Your task to perform on an android device: Add asus zenbook to the cart on target.com, then select checkout. Image 0: 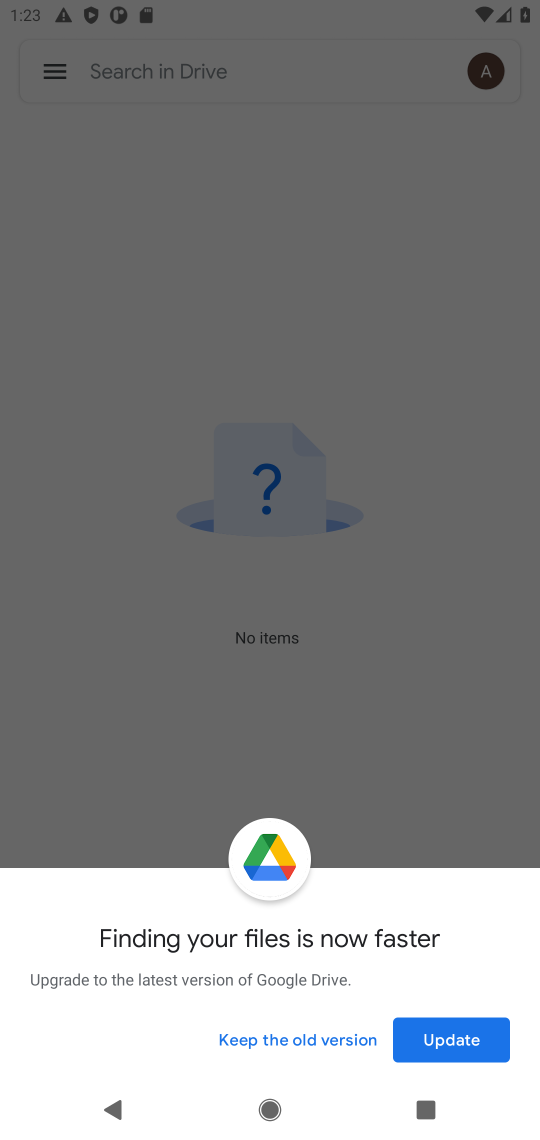
Step 0: press home button
Your task to perform on an android device: Add asus zenbook to the cart on target.com, then select checkout. Image 1: 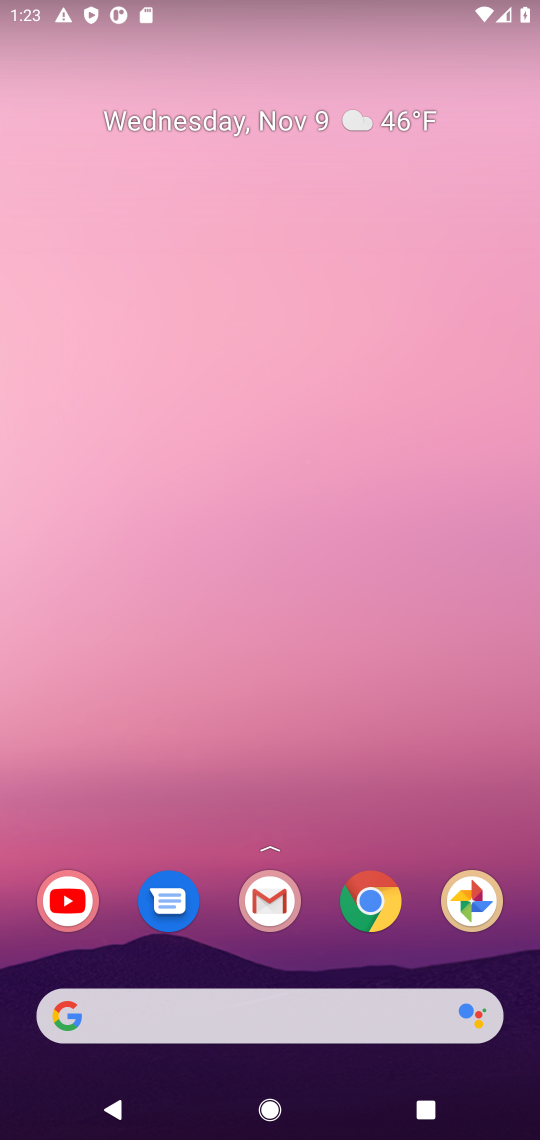
Step 1: click (377, 890)
Your task to perform on an android device: Add asus zenbook to the cart on target.com, then select checkout. Image 2: 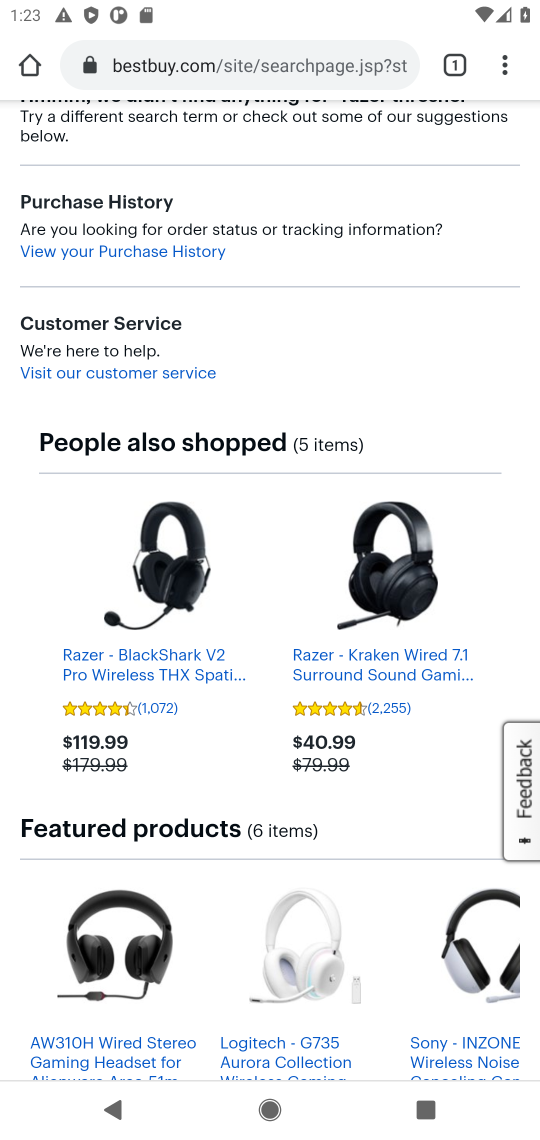
Step 2: click (325, 77)
Your task to perform on an android device: Add asus zenbook to the cart on target.com, then select checkout. Image 3: 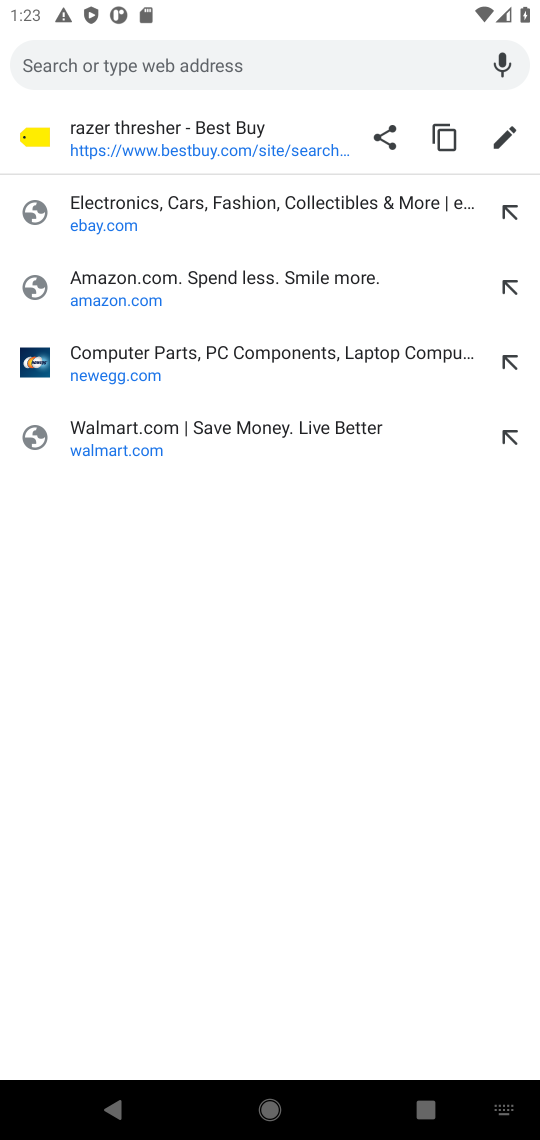
Step 3: type "target.com"
Your task to perform on an android device: Add asus zenbook to the cart on target.com, then select checkout. Image 4: 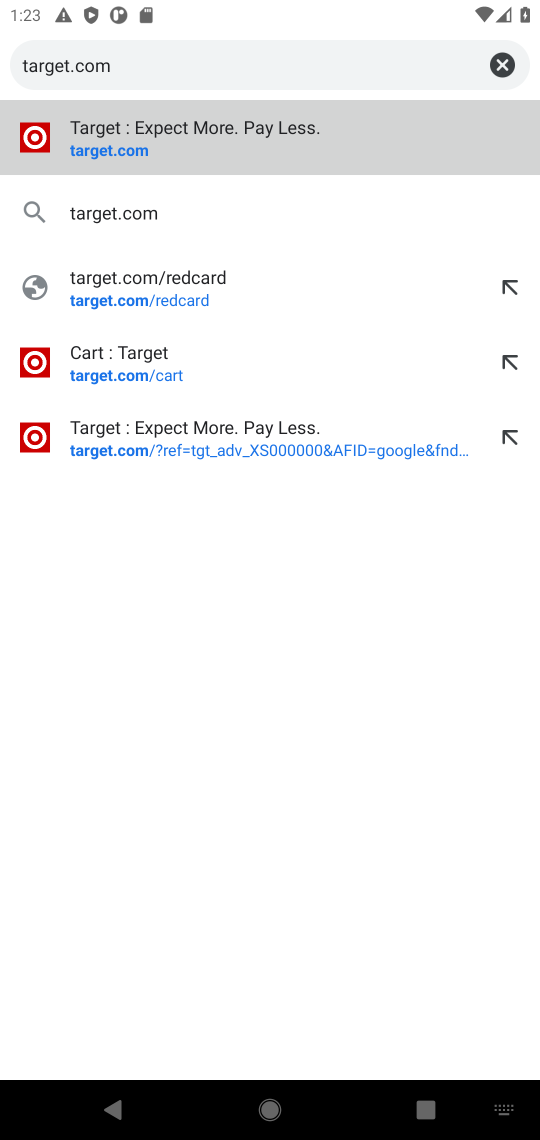
Step 4: press enter
Your task to perform on an android device: Add asus zenbook to the cart on target.com, then select checkout. Image 5: 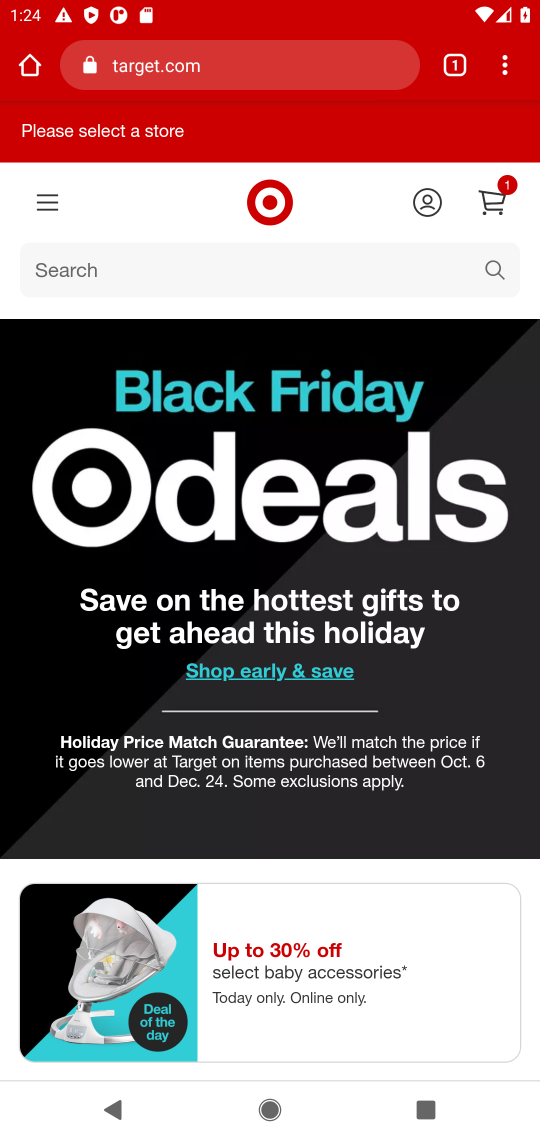
Step 5: click (488, 266)
Your task to perform on an android device: Add asus zenbook to the cart on target.com, then select checkout. Image 6: 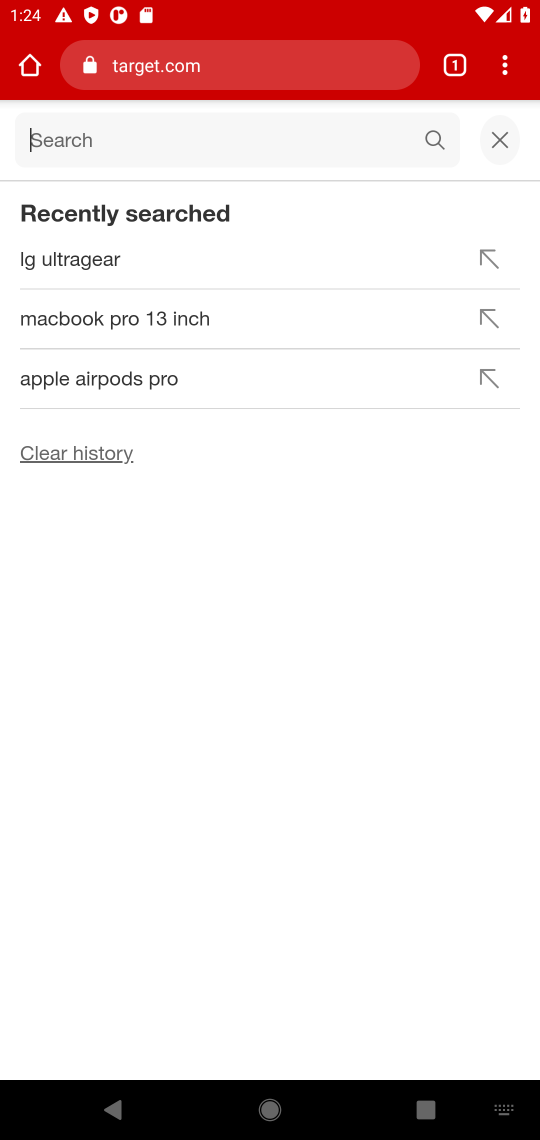
Step 6: type "asus zenbook "
Your task to perform on an android device: Add asus zenbook to the cart on target.com, then select checkout. Image 7: 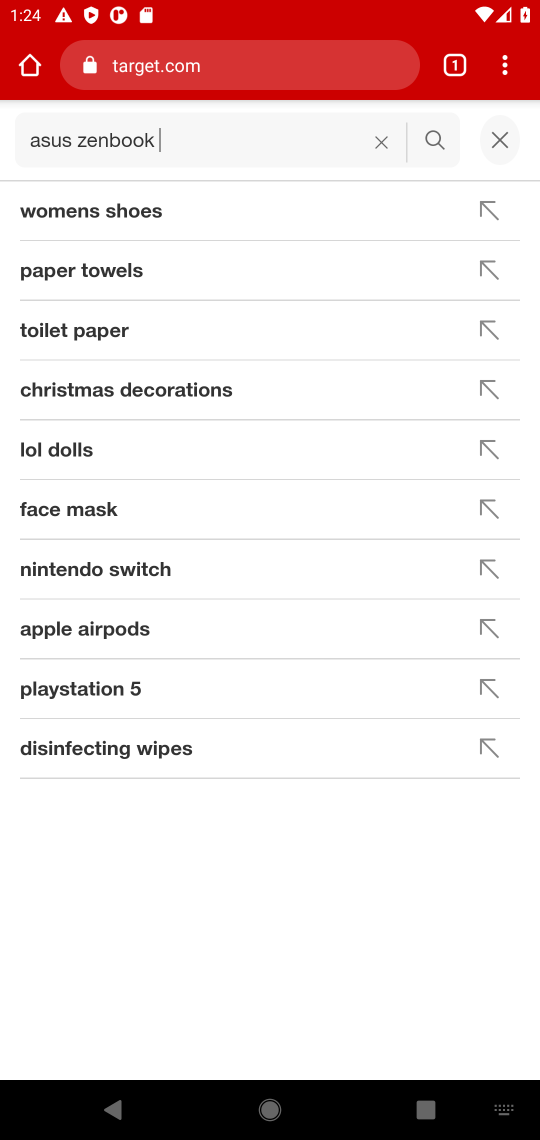
Step 7: press enter
Your task to perform on an android device: Add asus zenbook to the cart on target.com, then select checkout. Image 8: 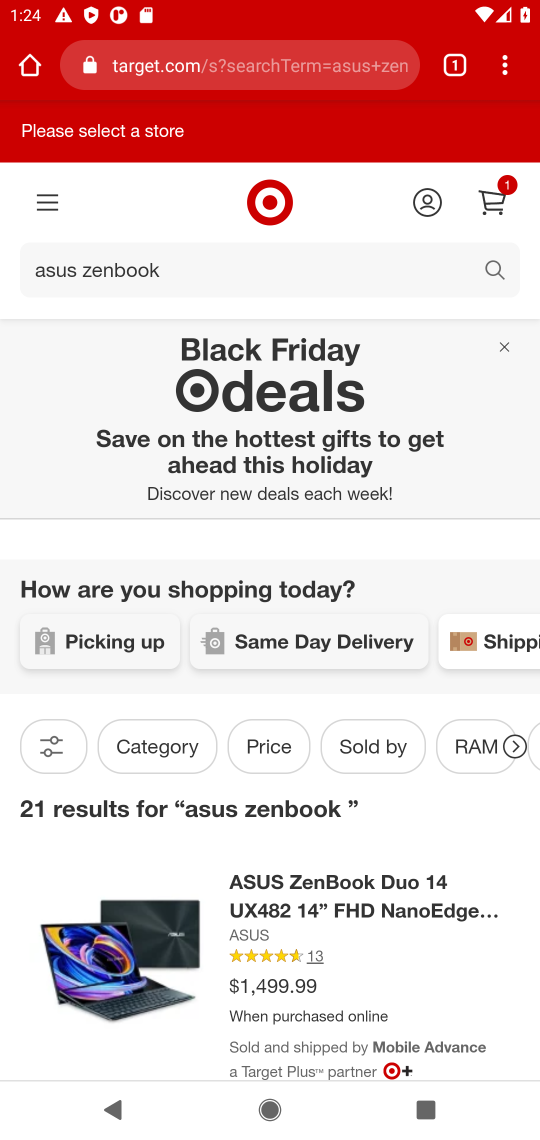
Step 8: drag from (328, 877) to (386, 626)
Your task to perform on an android device: Add asus zenbook to the cart on target.com, then select checkout. Image 9: 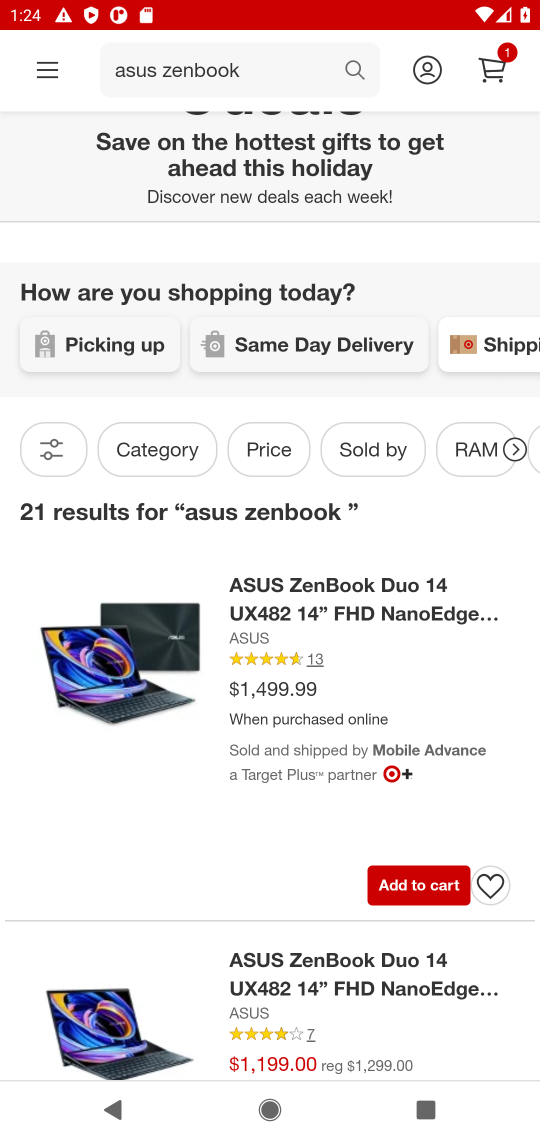
Step 9: click (161, 641)
Your task to perform on an android device: Add asus zenbook to the cart on target.com, then select checkout. Image 10: 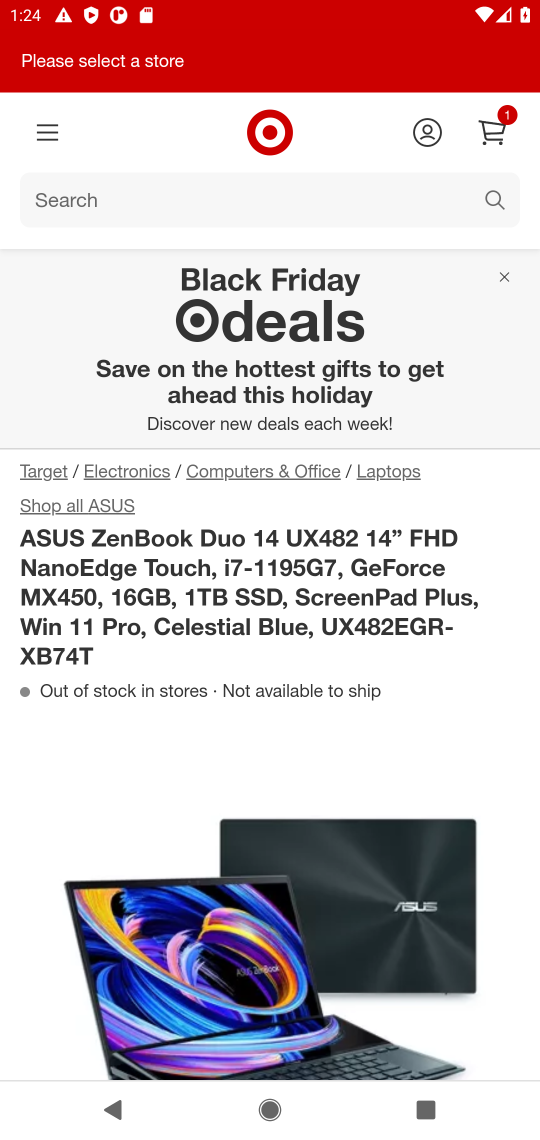
Step 10: drag from (465, 854) to (534, 340)
Your task to perform on an android device: Add asus zenbook to the cart on target.com, then select checkout. Image 11: 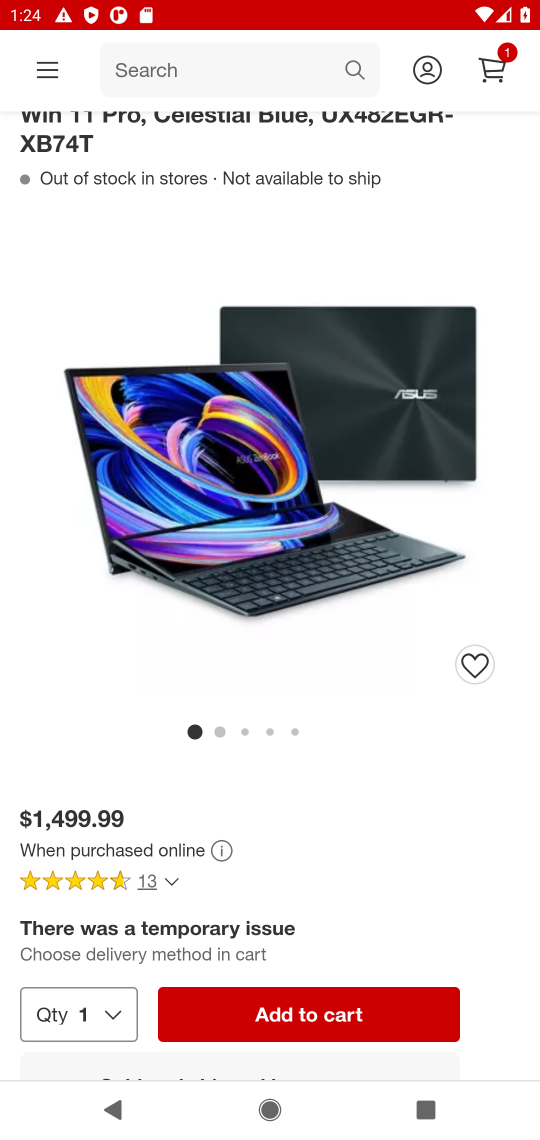
Step 11: drag from (354, 901) to (454, 465)
Your task to perform on an android device: Add asus zenbook to the cart on target.com, then select checkout. Image 12: 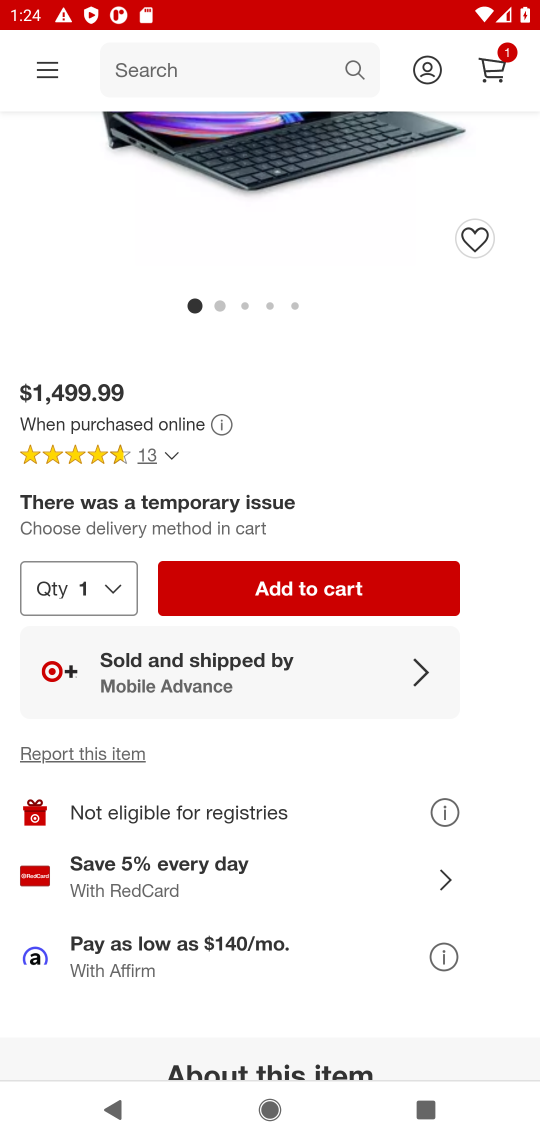
Step 12: click (318, 586)
Your task to perform on an android device: Add asus zenbook to the cart on target.com, then select checkout. Image 13: 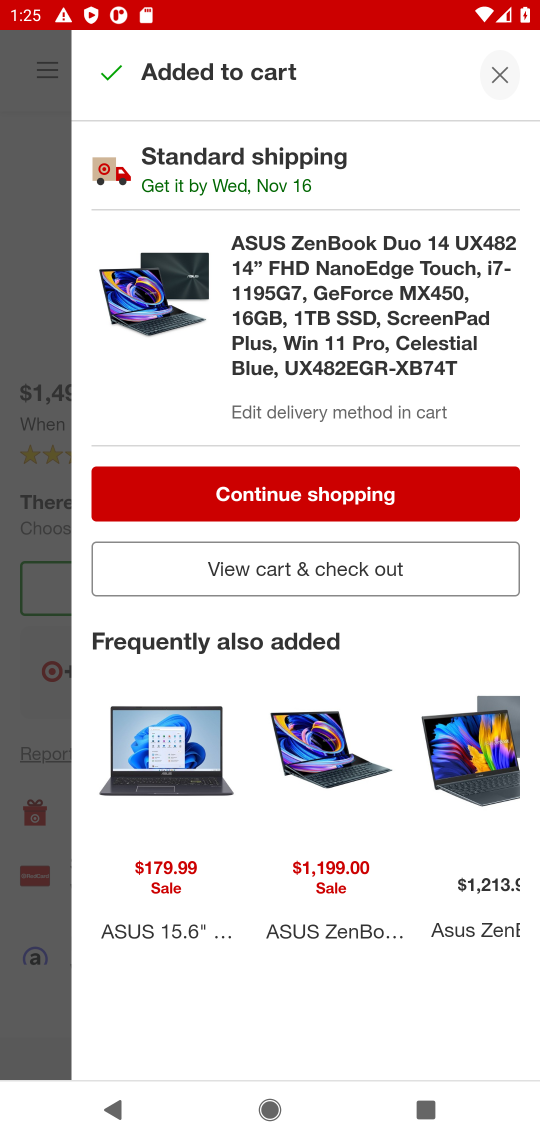
Step 13: click (504, 75)
Your task to perform on an android device: Add asus zenbook to the cart on target.com, then select checkout. Image 14: 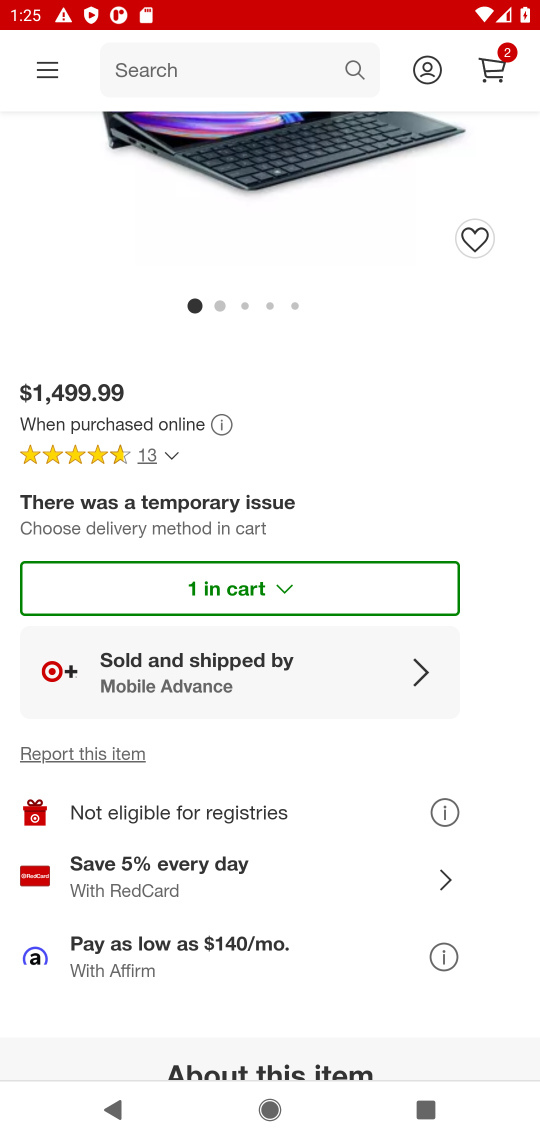
Step 14: click (498, 72)
Your task to perform on an android device: Add asus zenbook to the cart on target.com, then select checkout. Image 15: 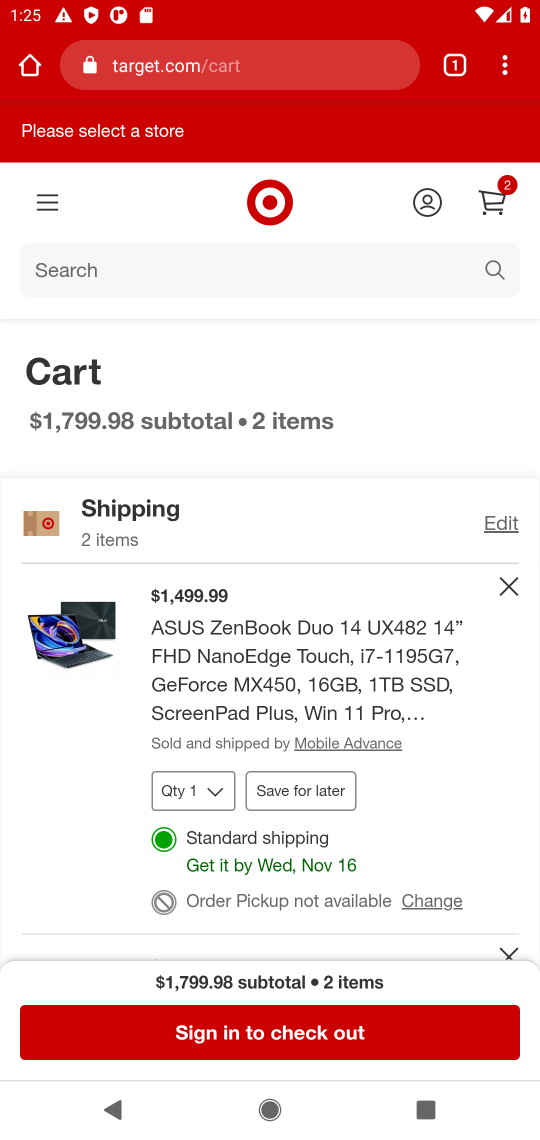
Step 15: click (357, 1037)
Your task to perform on an android device: Add asus zenbook to the cart on target.com, then select checkout. Image 16: 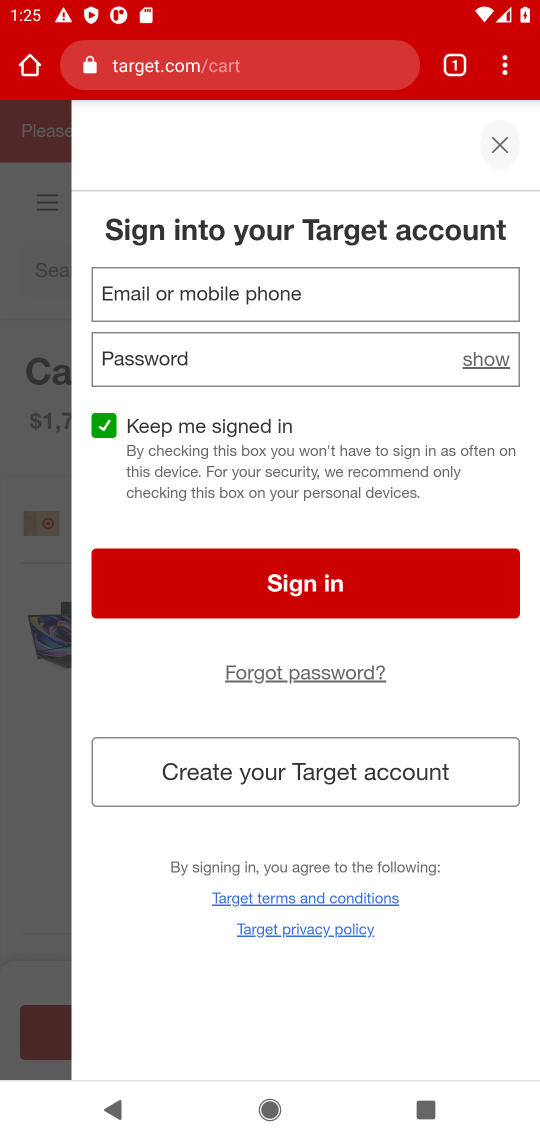
Step 16: task complete